Your task to perform on an android device: Do I have any events tomorrow? Image 0: 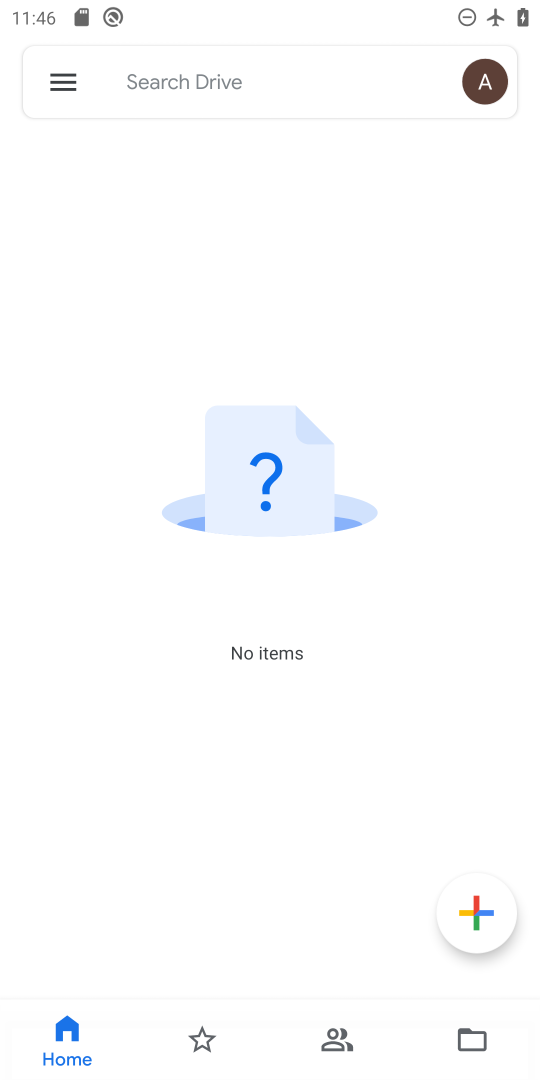
Step 0: press home button
Your task to perform on an android device: Do I have any events tomorrow? Image 1: 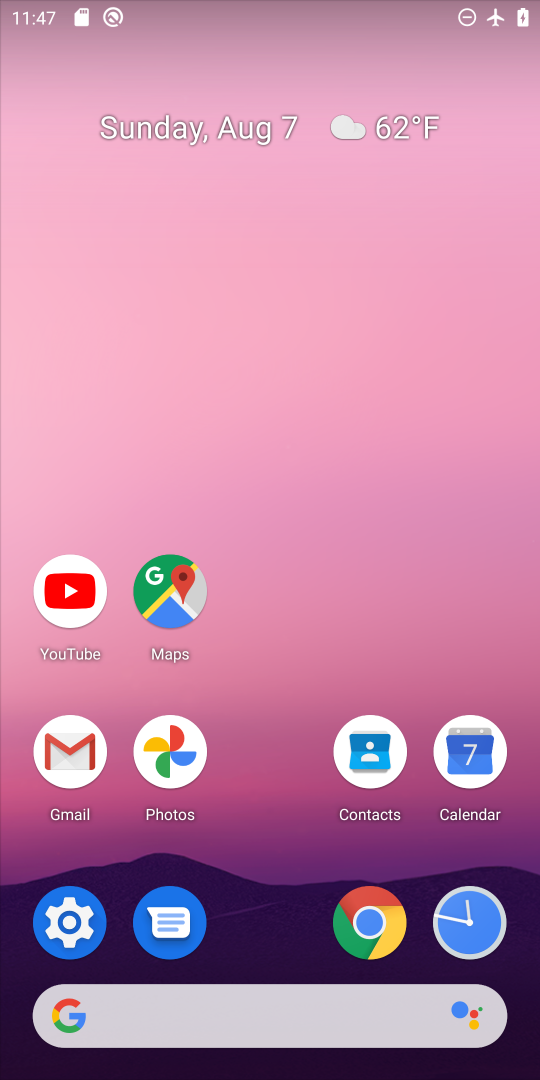
Step 1: click (466, 749)
Your task to perform on an android device: Do I have any events tomorrow? Image 2: 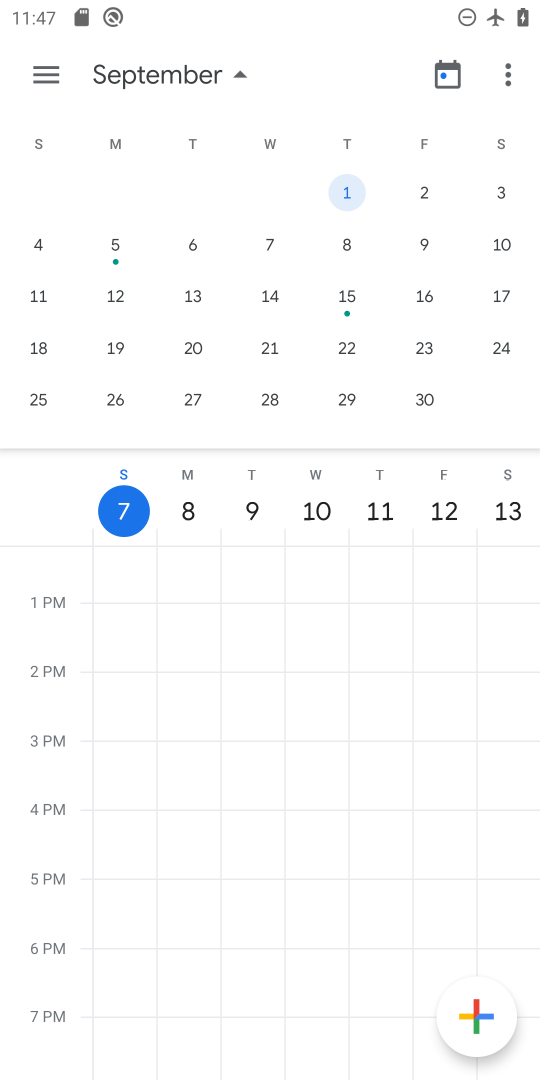
Step 2: click (42, 79)
Your task to perform on an android device: Do I have any events tomorrow? Image 3: 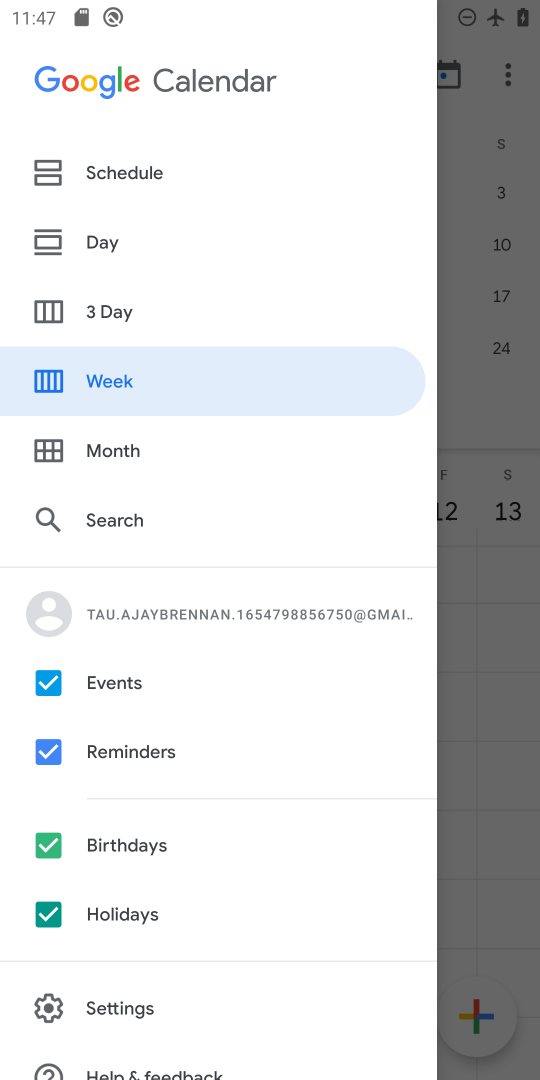
Step 3: click (87, 226)
Your task to perform on an android device: Do I have any events tomorrow? Image 4: 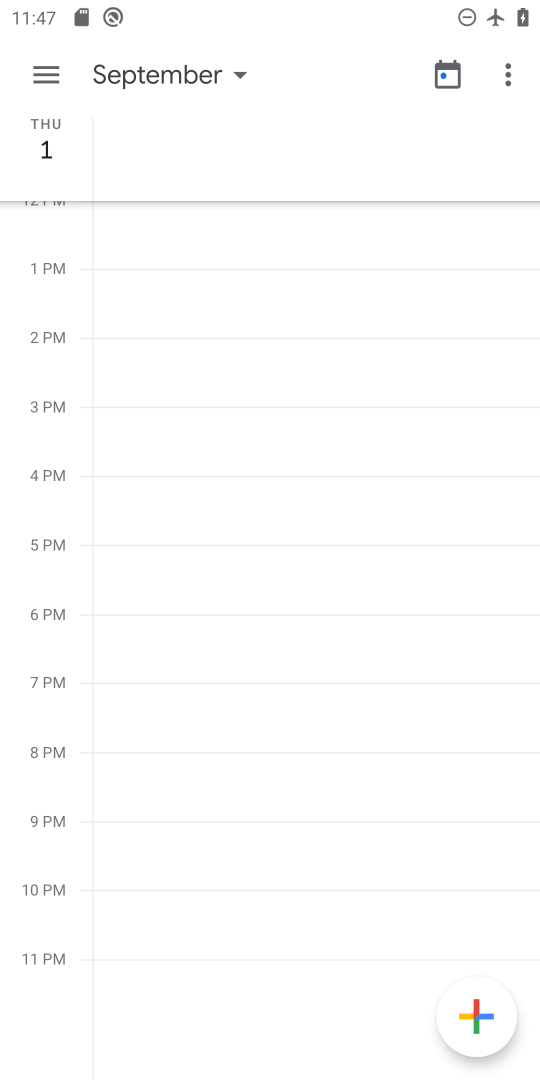
Step 4: click (226, 68)
Your task to perform on an android device: Do I have any events tomorrow? Image 5: 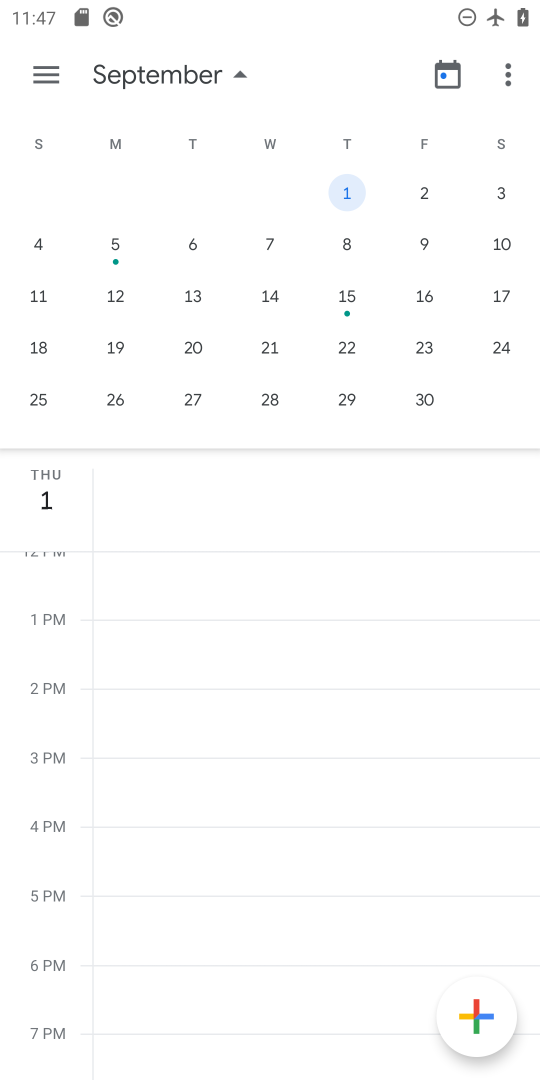
Step 5: drag from (70, 225) to (476, 250)
Your task to perform on an android device: Do I have any events tomorrow? Image 6: 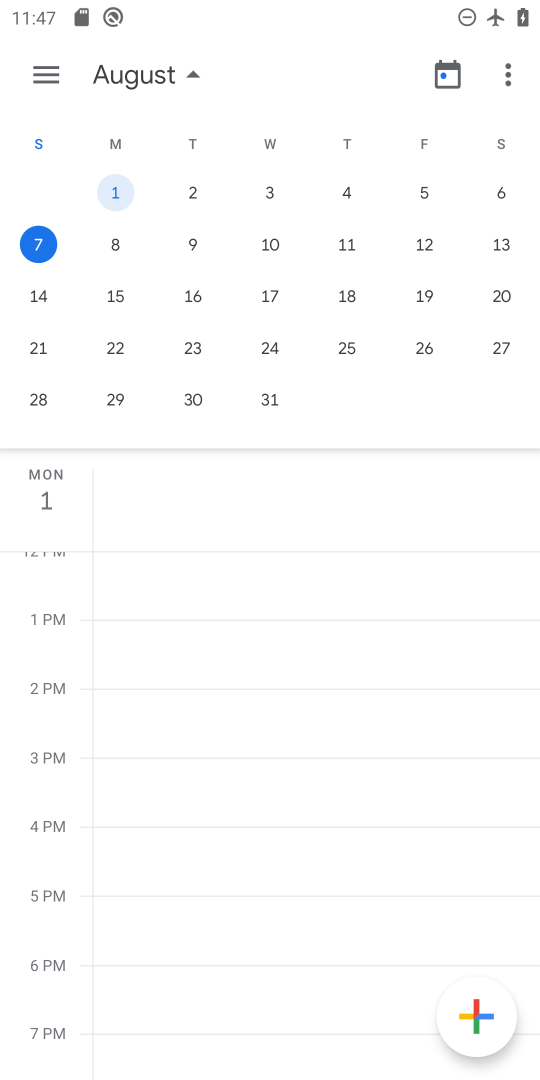
Step 6: click (108, 242)
Your task to perform on an android device: Do I have any events tomorrow? Image 7: 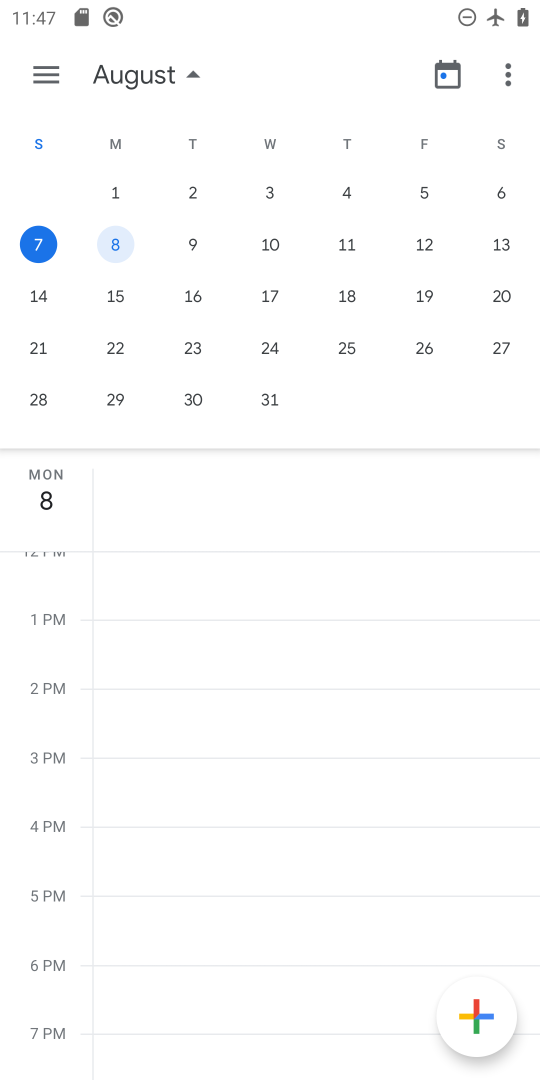
Step 7: task complete